Your task to perform on an android device: Is it going to rain this weekend? Image 0: 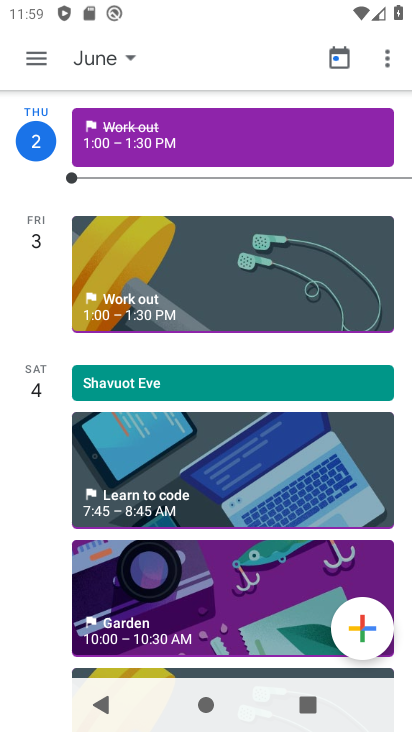
Step 0: press home button
Your task to perform on an android device: Is it going to rain this weekend? Image 1: 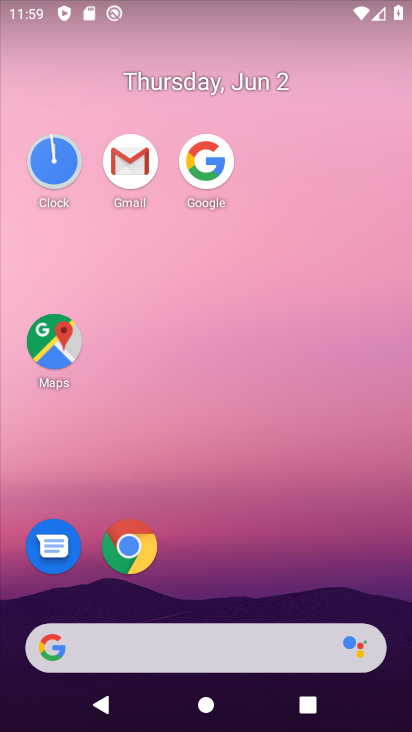
Step 1: click (220, 162)
Your task to perform on an android device: Is it going to rain this weekend? Image 2: 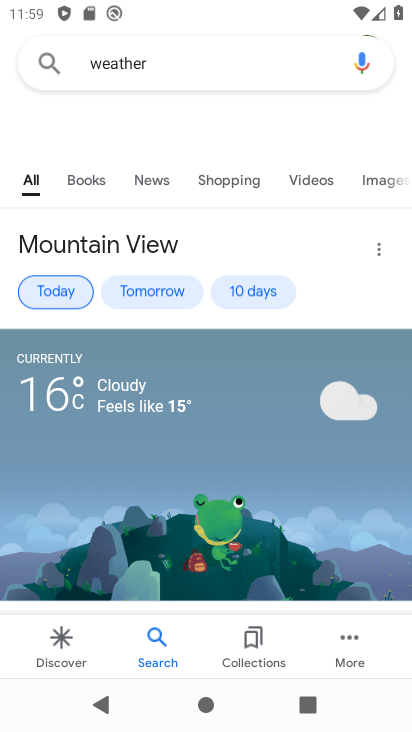
Step 2: click (273, 277)
Your task to perform on an android device: Is it going to rain this weekend? Image 3: 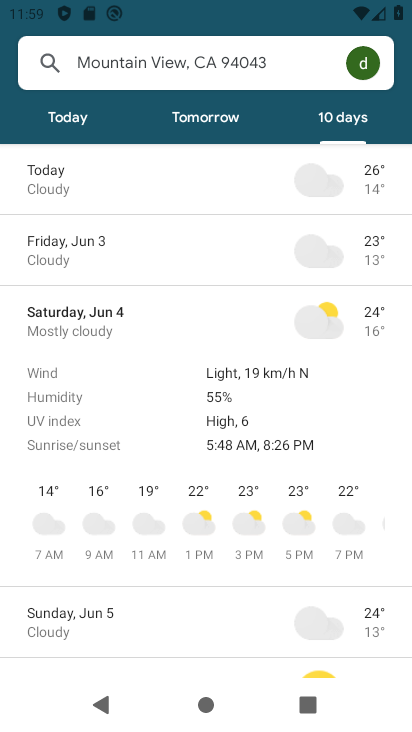
Step 3: task complete